Your task to perform on an android device: Open Google Maps and go to "Timeline" Image 0: 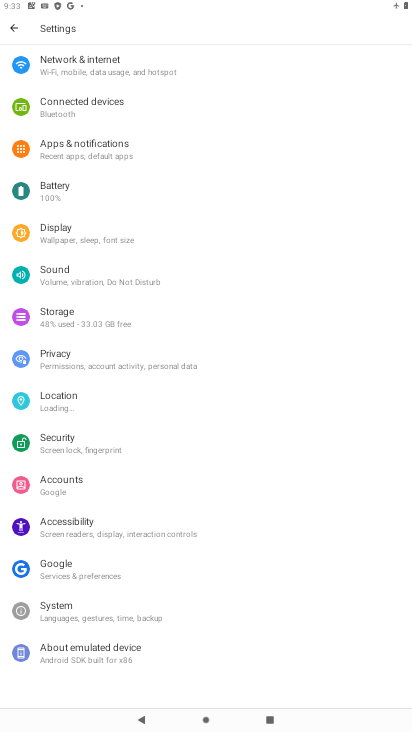
Step 0: press home button
Your task to perform on an android device: Open Google Maps and go to "Timeline" Image 1: 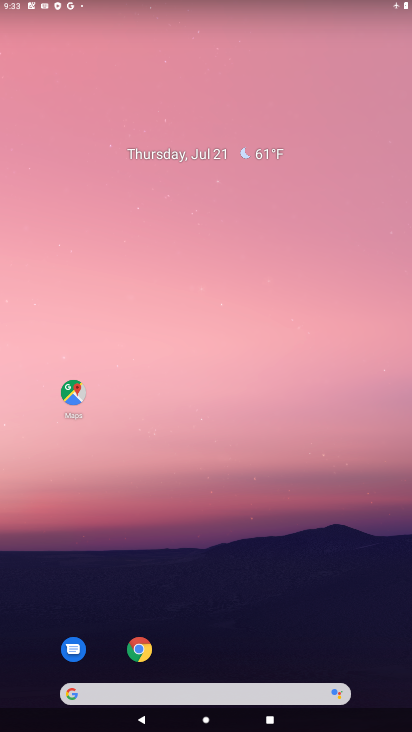
Step 1: click (71, 394)
Your task to perform on an android device: Open Google Maps and go to "Timeline" Image 2: 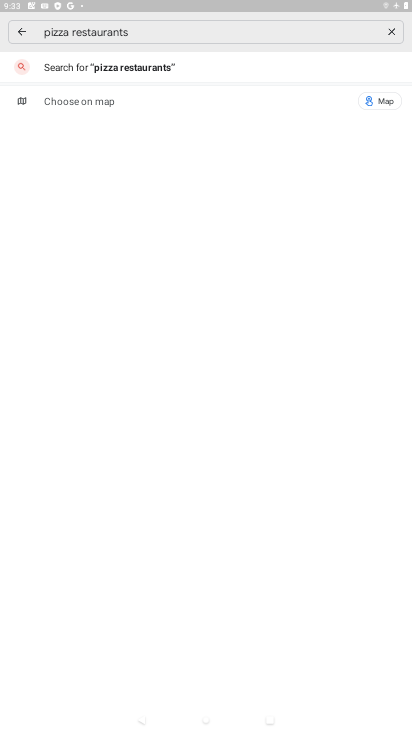
Step 2: click (391, 30)
Your task to perform on an android device: Open Google Maps and go to "Timeline" Image 3: 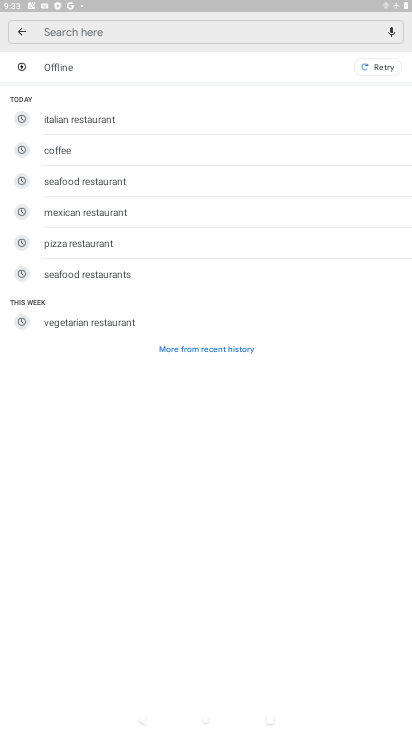
Step 3: press back button
Your task to perform on an android device: Open Google Maps and go to "Timeline" Image 4: 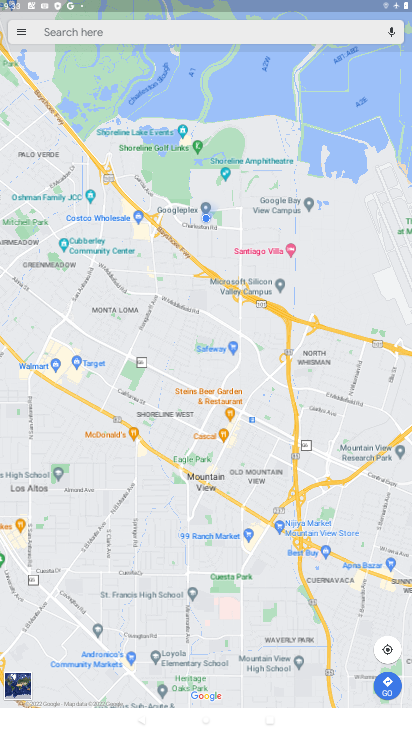
Step 4: click (19, 31)
Your task to perform on an android device: Open Google Maps and go to "Timeline" Image 5: 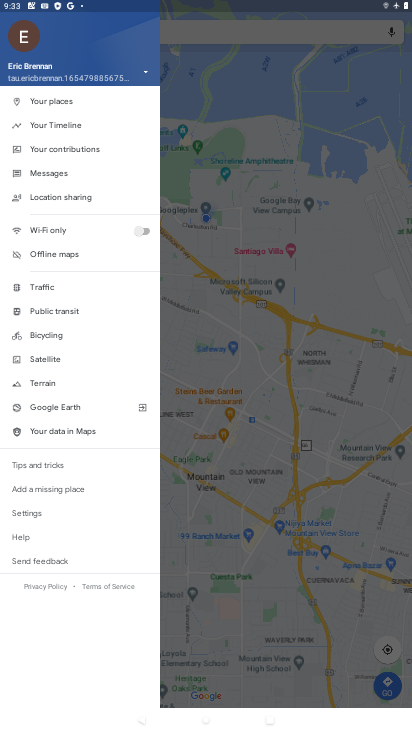
Step 5: click (54, 119)
Your task to perform on an android device: Open Google Maps and go to "Timeline" Image 6: 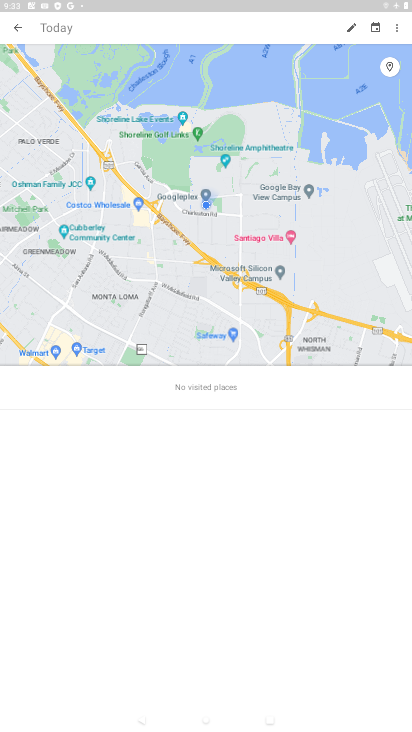
Step 6: task complete